Your task to perform on an android device: Search for flights from NYC to San Francisco Image 0: 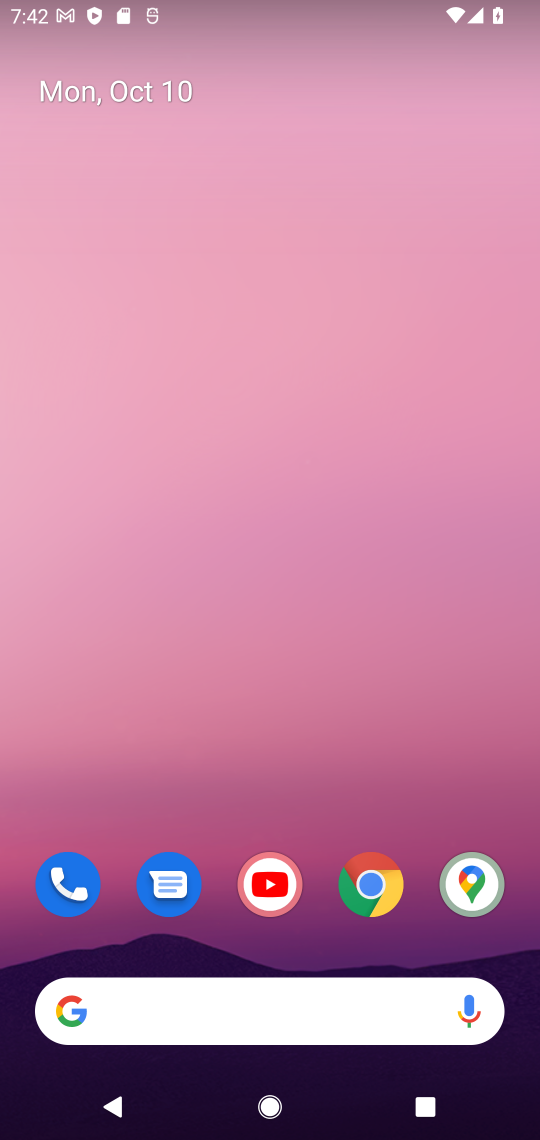
Step 0: click (387, 887)
Your task to perform on an android device: Search for flights from NYC to San Francisco Image 1: 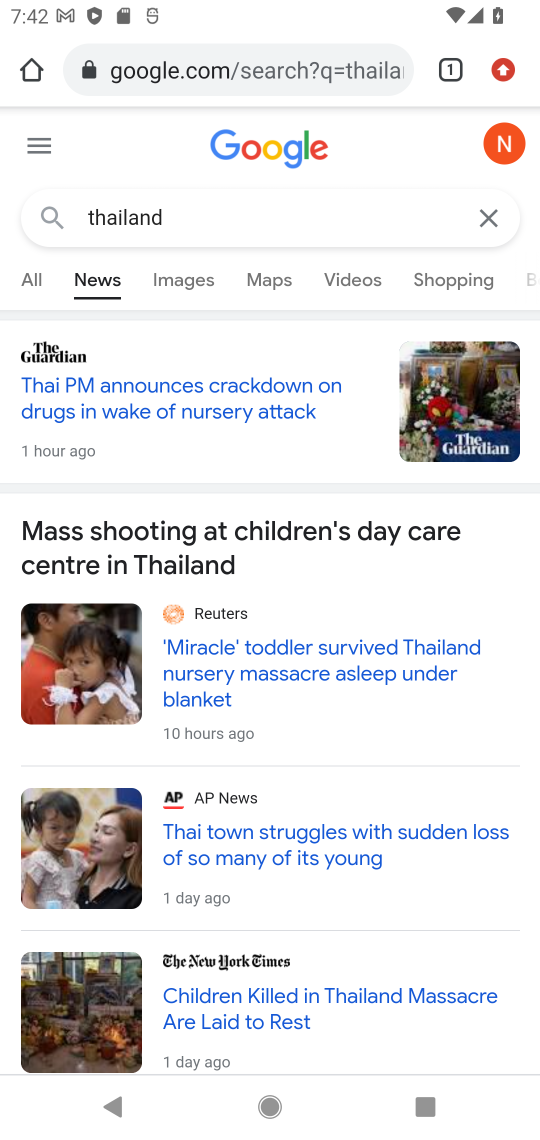
Step 1: click (279, 72)
Your task to perform on an android device: Search for flights from NYC to San Francisco Image 2: 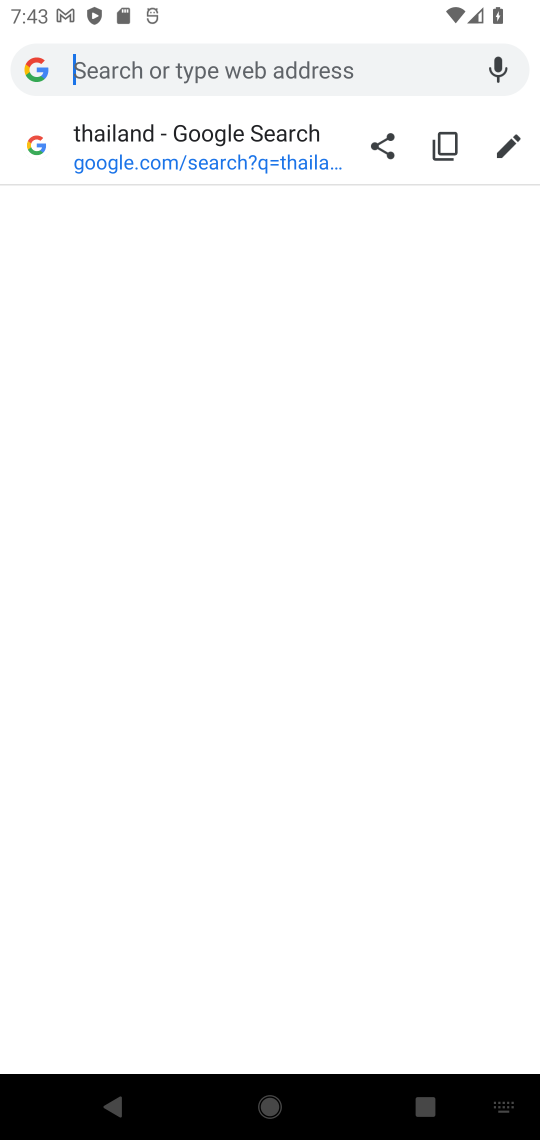
Step 2: type "nyc to san francisco flights"
Your task to perform on an android device: Search for flights from NYC to San Francisco Image 3: 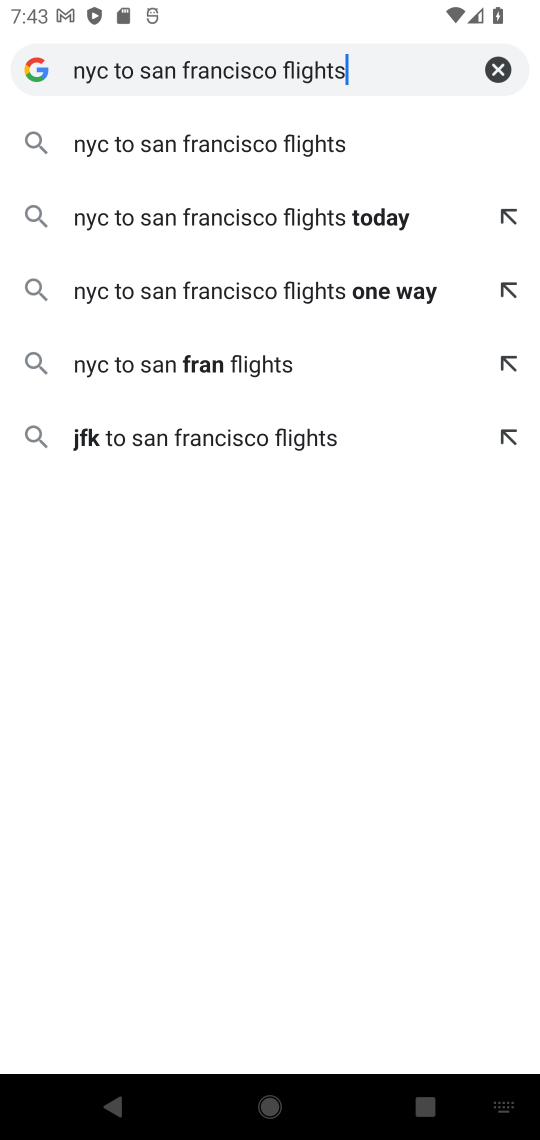
Step 3: click (323, 149)
Your task to perform on an android device: Search for flights from NYC to San Francisco Image 4: 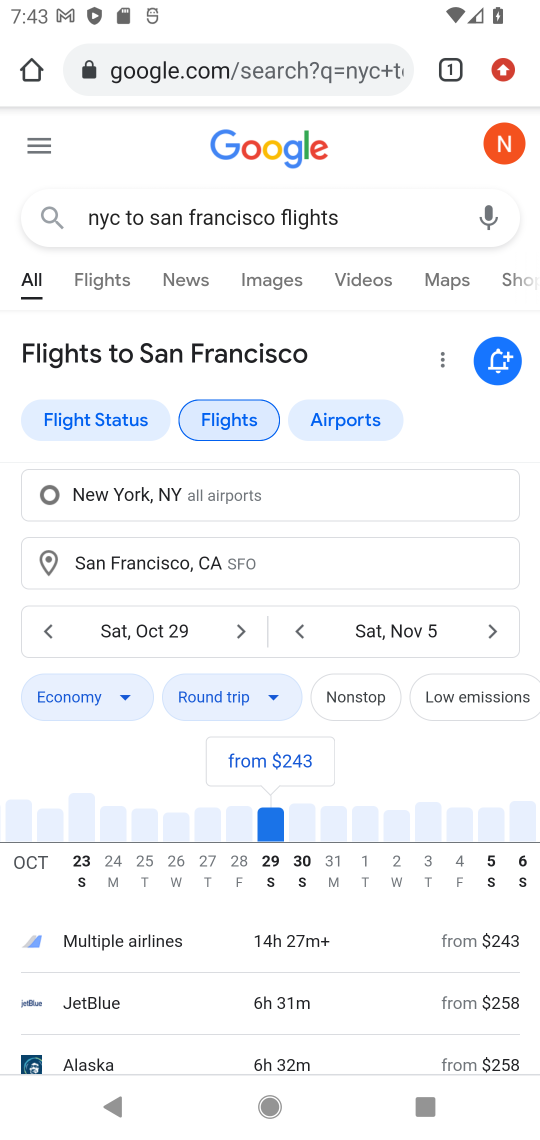
Step 4: task complete